Your task to perform on an android device: Clear the cart on bestbuy. Add "acer nitro" to the cart on bestbuy, then select checkout. Image 0: 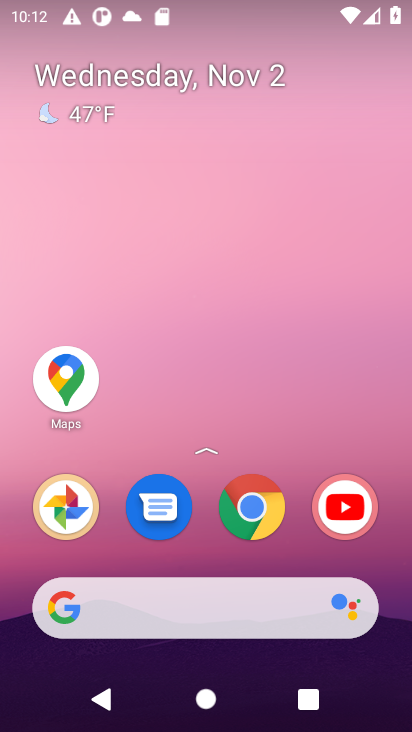
Step 0: click (210, 616)
Your task to perform on an android device: Clear the cart on bestbuy. Add "acer nitro" to the cart on bestbuy, then select checkout. Image 1: 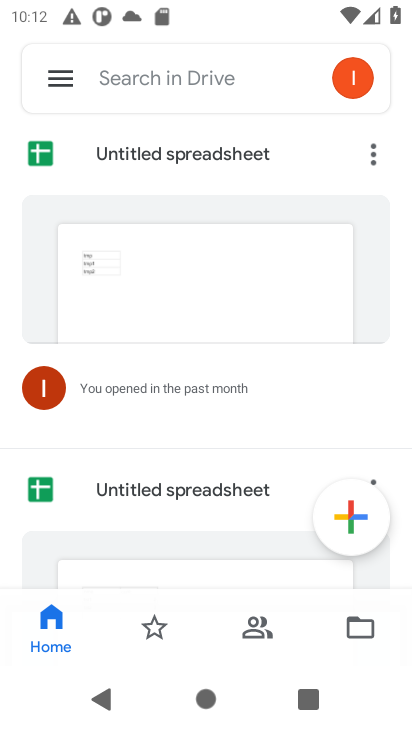
Step 1: press home button
Your task to perform on an android device: Clear the cart on bestbuy. Add "acer nitro" to the cart on bestbuy, then select checkout. Image 2: 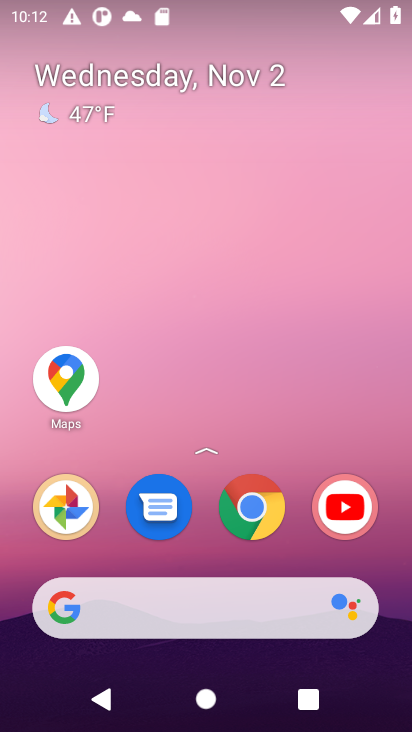
Step 2: click (186, 632)
Your task to perform on an android device: Clear the cart on bestbuy. Add "acer nitro" to the cart on bestbuy, then select checkout. Image 3: 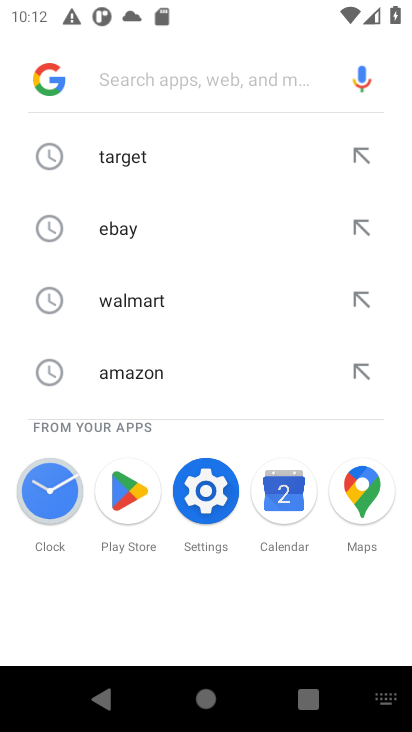
Step 3: type "bestbuy"
Your task to perform on an android device: Clear the cart on bestbuy. Add "acer nitro" to the cart on bestbuy, then select checkout. Image 4: 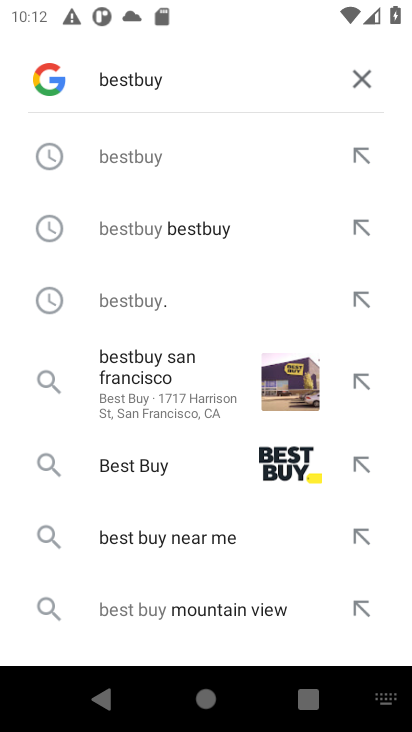
Step 4: click (118, 184)
Your task to perform on an android device: Clear the cart on bestbuy. Add "acer nitro" to the cart on bestbuy, then select checkout. Image 5: 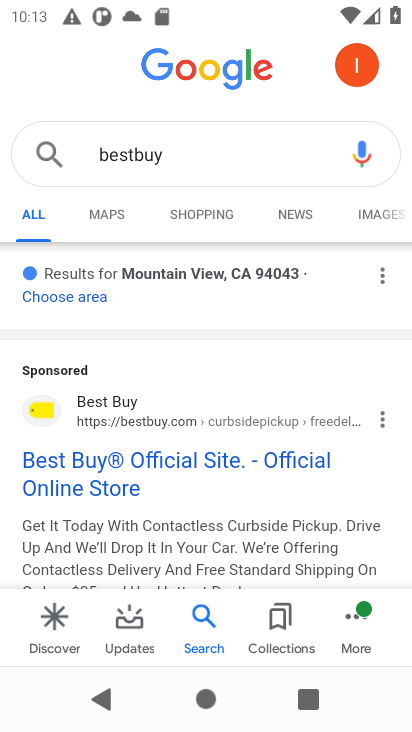
Step 5: click (95, 464)
Your task to perform on an android device: Clear the cart on bestbuy. Add "acer nitro" to the cart on bestbuy, then select checkout. Image 6: 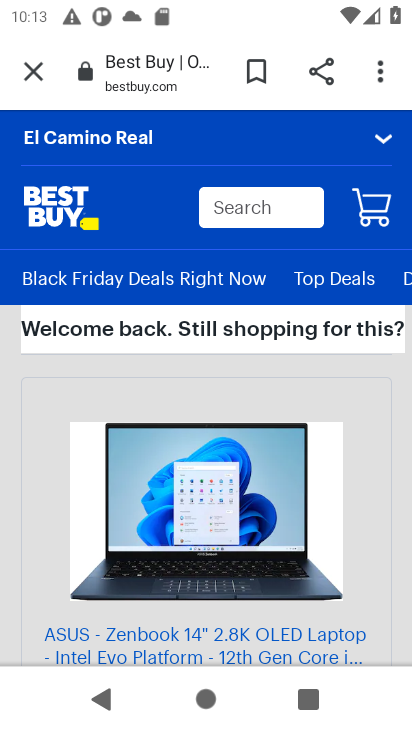
Step 6: click (149, 581)
Your task to perform on an android device: Clear the cart on bestbuy. Add "acer nitro" to the cart on bestbuy, then select checkout. Image 7: 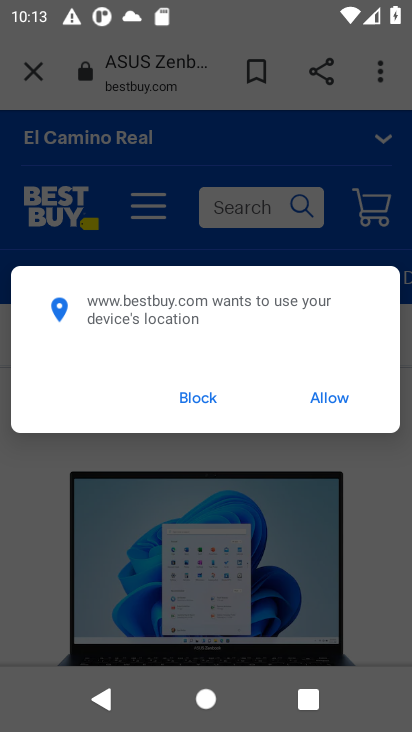
Step 7: task complete